Your task to perform on an android device: move an email to a new category in the gmail app Image 0: 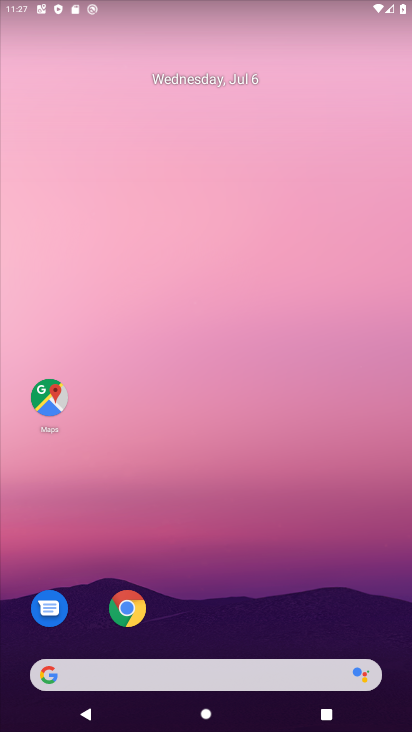
Step 0: drag from (235, 542) to (296, 56)
Your task to perform on an android device: move an email to a new category in the gmail app Image 1: 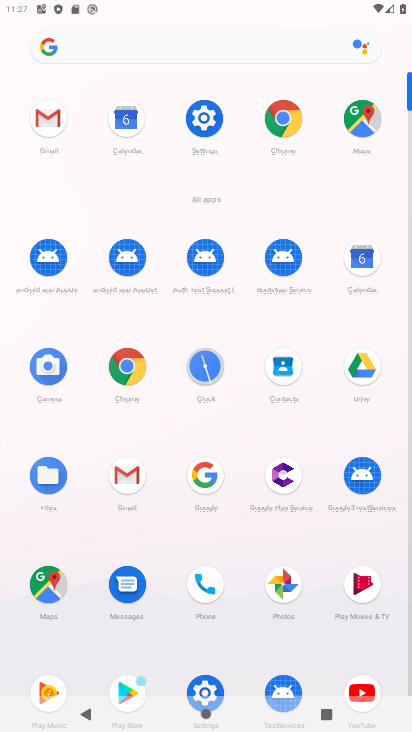
Step 1: click (25, 140)
Your task to perform on an android device: move an email to a new category in the gmail app Image 2: 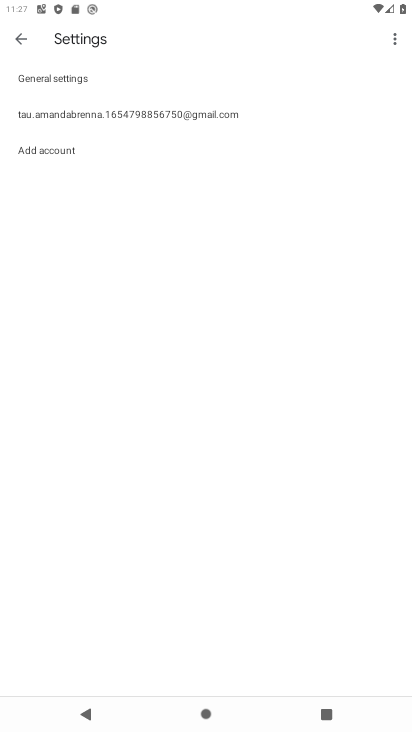
Step 2: click (6, 47)
Your task to perform on an android device: move an email to a new category in the gmail app Image 3: 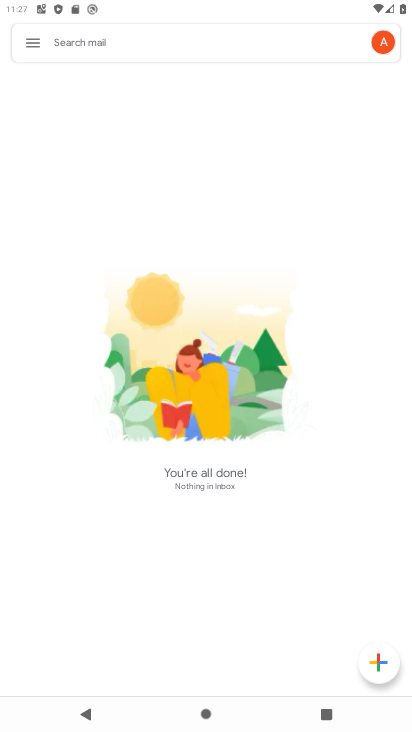
Step 3: task complete